Your task to perform on an android device: uninstall "DuckDuckGo Privacy Browser" Image 0: 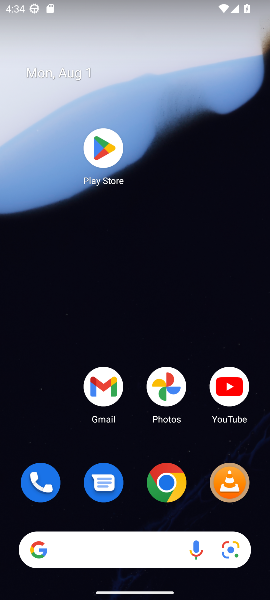
Step 0: press home button
Your task to perform on an android device: uninstall "DuckDuckGo Privacy Browser" Image 1: 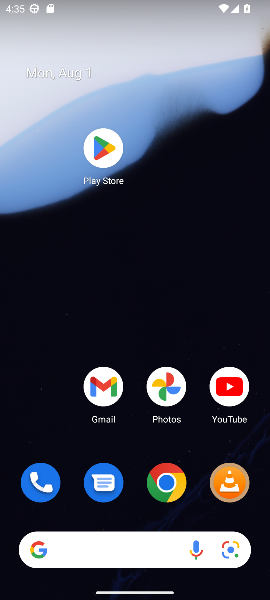
Step 1: click (103, 153)
Your task to perform on an android device: uninstall "DuckDuckGo Privacy Browser" Image 2: 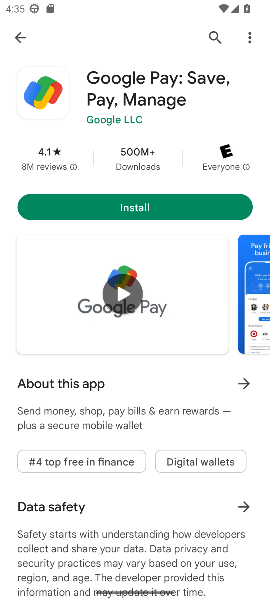
Step 2: click (215, 33)
Your task to perform on an android device: uninstall "DuckDuckGo Privacy Browser" Image 3: 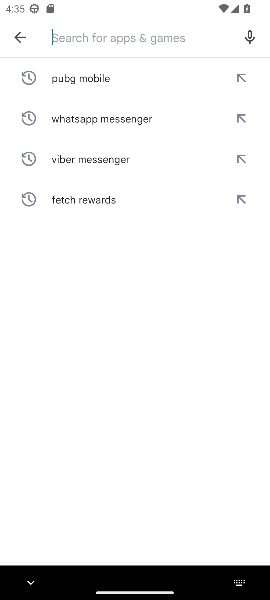
Step 3: click (254, 599)
Your task to perform on an android device: uninstall "DuckDuckGo Privacy Browser" Image 4: 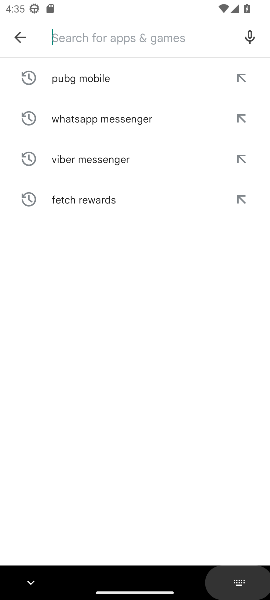
Step 4: type "DuckDuckGo Privacy Browser"
Your task to perform on an android device: uninstall "DuckDuckGo Privacy Browser" Image 5: 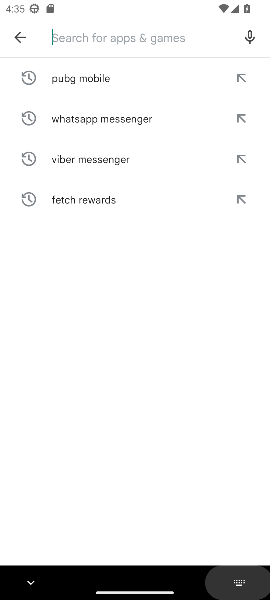
Step 5: drag from (254, 599) to (236, 176)
Your task to perform on an android device: uninstall "DuckDuckGo Privacy Browser" Image 6: 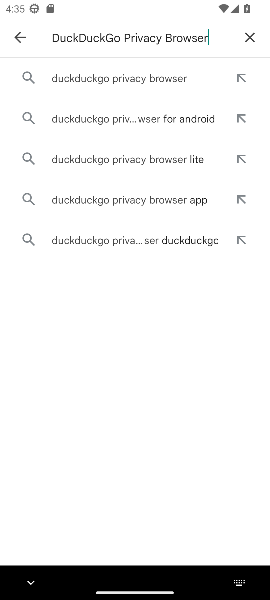
Step 6: click (172, 74)
Your task to perform on an android device: uninstall "DuckDuckGo Privacy Browser" Image 7: 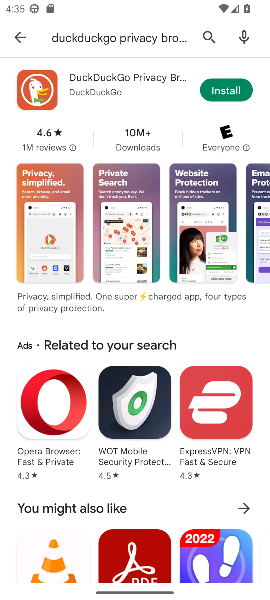
Step 7: task complete